Your task to perform on an android device: set the stopwatch Image 0: 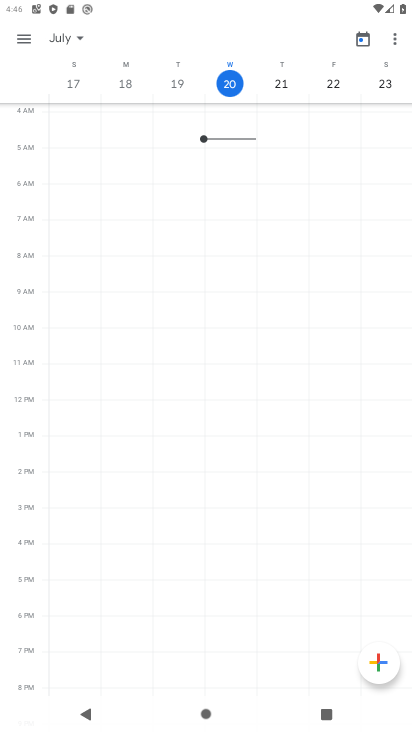
Step 0: press home button
Your task to perform on an android device: set the stopwatch Image 1: 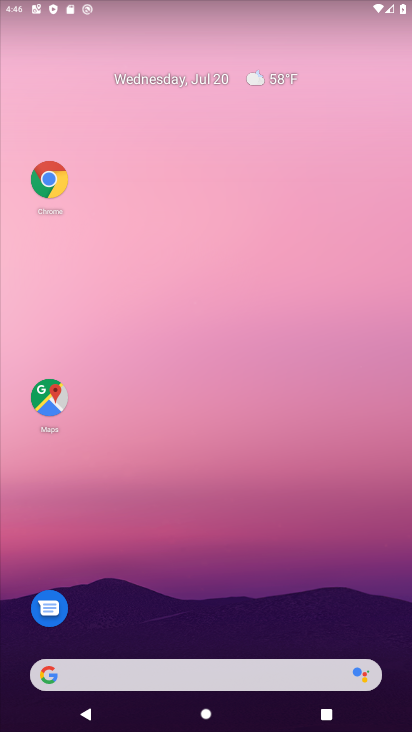
Step 1: drag from (208, 643) to (109, 74)
Your task to perform on an android device: set the stopwatch Image 2: 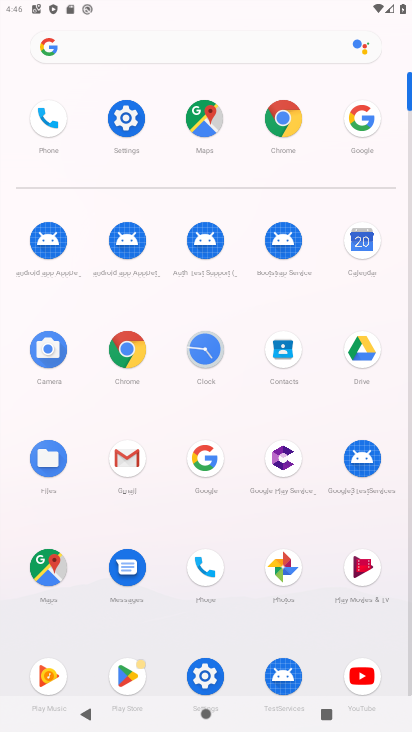
Step 2: click (201, 351)
Your task to perform on an android device: set the stopwatch Image 3: 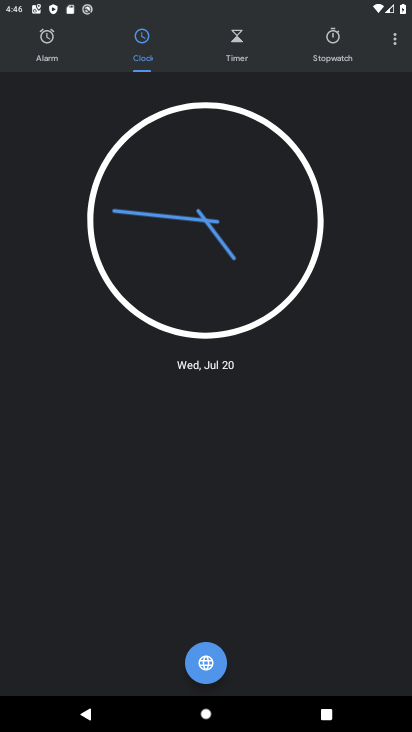
Step 3: click (328, 38)
Your task to perform on an android device: set the stopwatch Image 4: 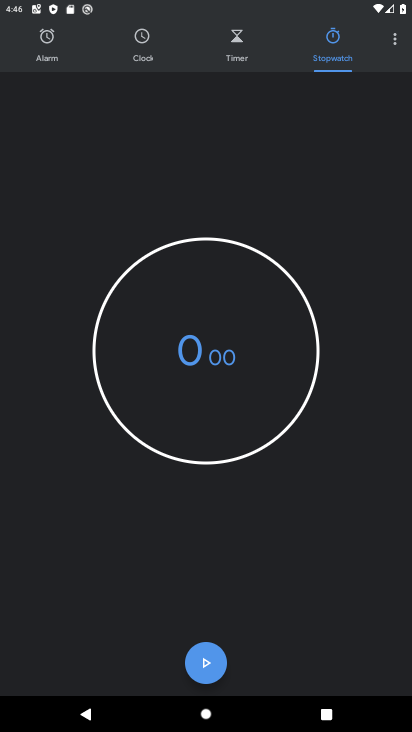
Step 4: task complete